Your task to perform on an android device: check storage Image 0: 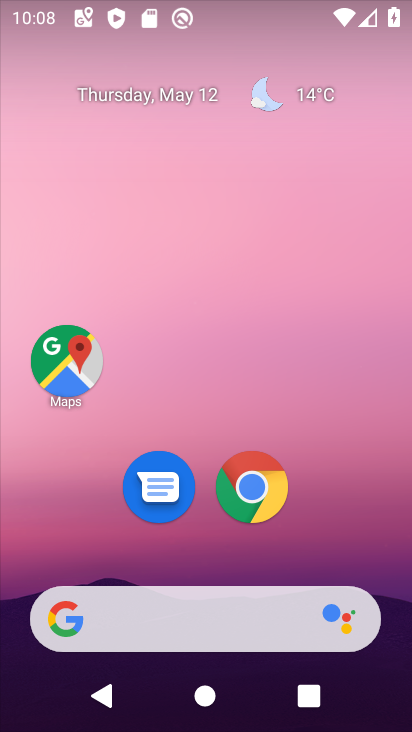
Step 0: drag from (26, 480) to (169, 99)
Your task to perform on an android device: check storage Image 1: 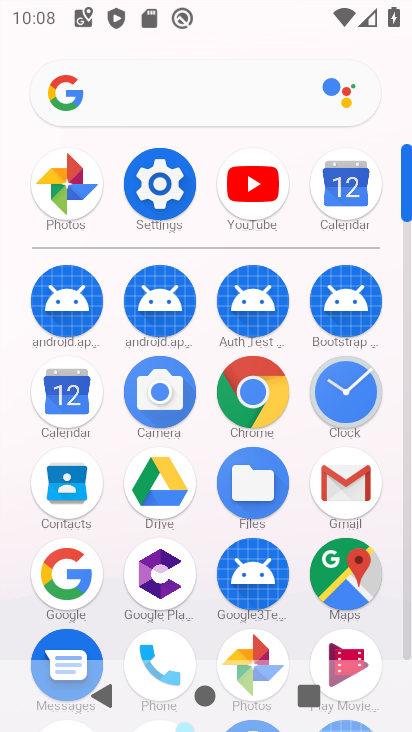
Step 1: click (149, 184)
Your task to perform on an android device: check storage Image 2: 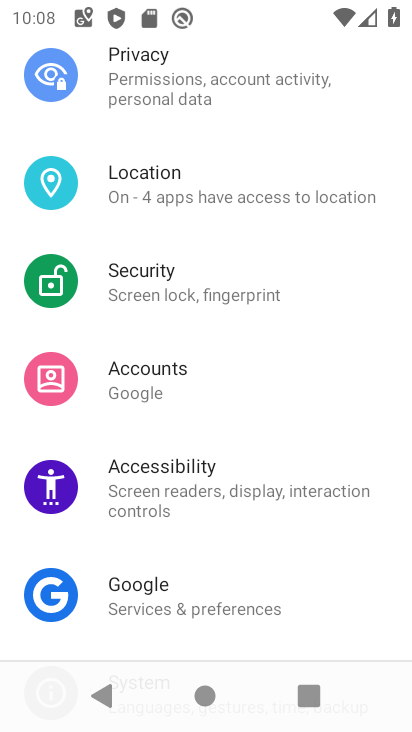
Step 2: drag from (159, 187) to (121, 683)
Your task to perform on an android device: check storage Image 3: 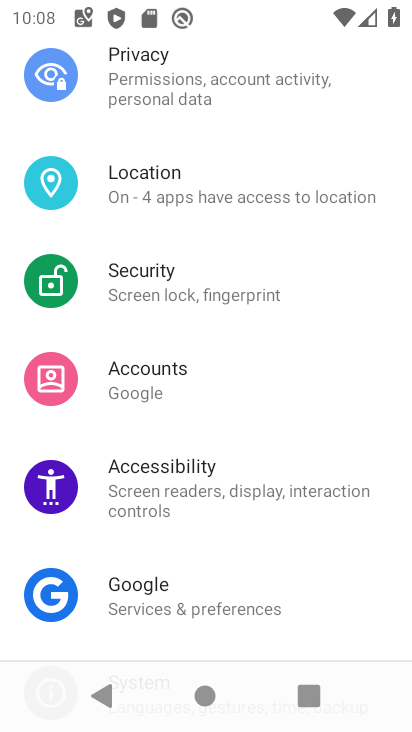
Step 3: drag from (197, 174) to (206, 533)
Your task to perform on an android device: check storage Image 4: 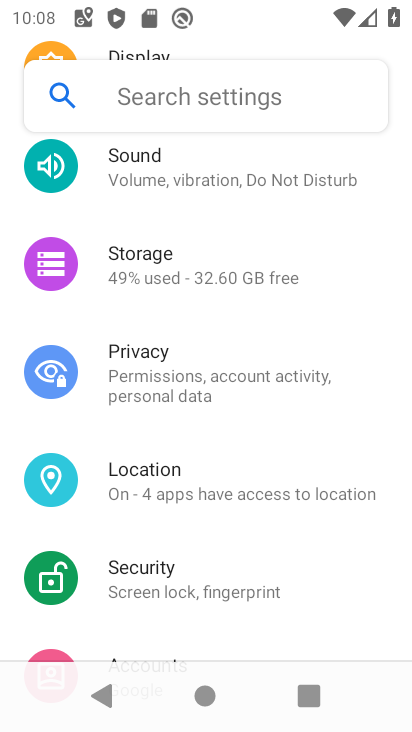
Step 4: click (164, 246)
Your task to perform on an android device: check storage Image 5: 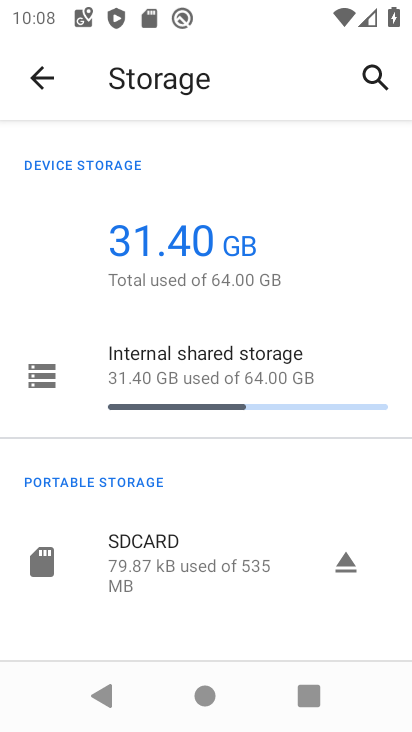
Step 5: task complete